Your task to perform on an android device: delete a single message in the gmail app Image 0: 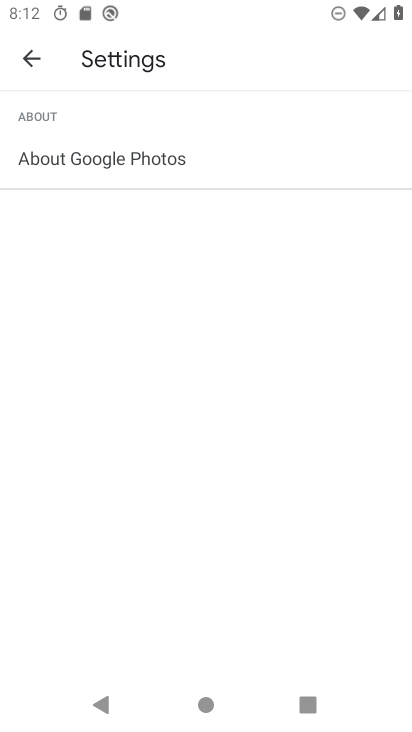
Step 0: press home button
Your task to perform on an android device: delete a single message in the gmail app Image 1: 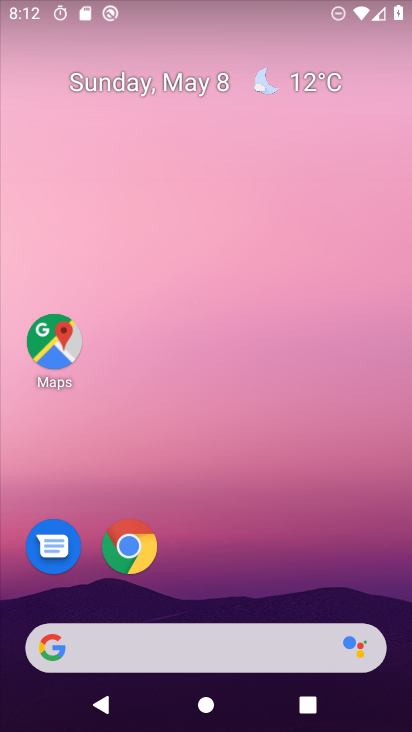
Step 1: drag from (222, 553) to (262, 25)
Your task to perform on an android device: delete a single message in the gmail app Image 2: 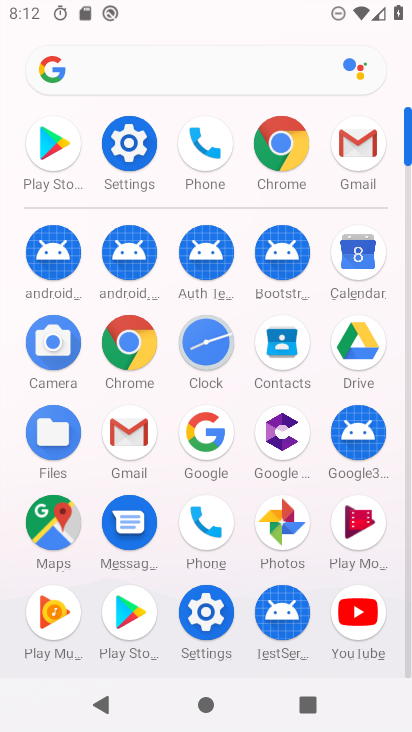
Step 2: click (354, 141)
Your task to perform on an android device: delete a single message in the gmail app Image 3: 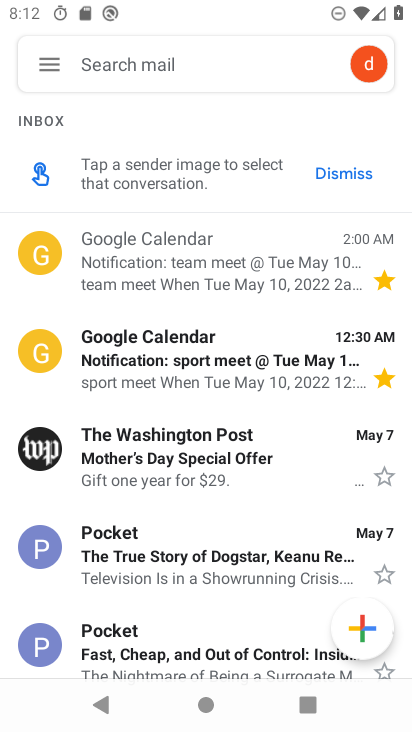
Step 3: drag from (261, 528) to (261, 180)
Your task to perform on an android device: delete a single message in the gmail app Image 4: 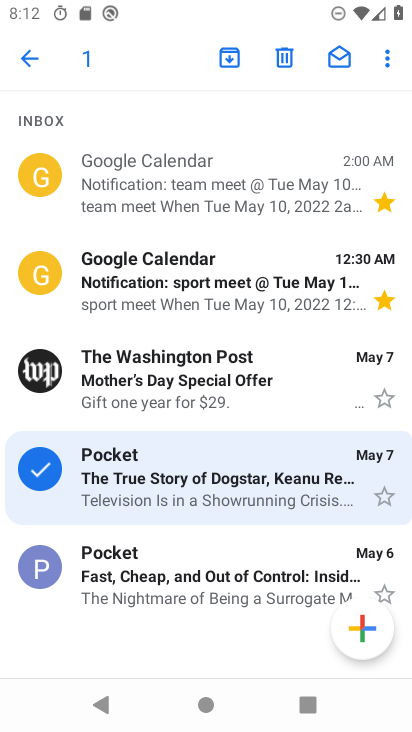
Step 4: click (284, 55)
Your task to perform on an android device: delete a single message in the gmail app Image 5: 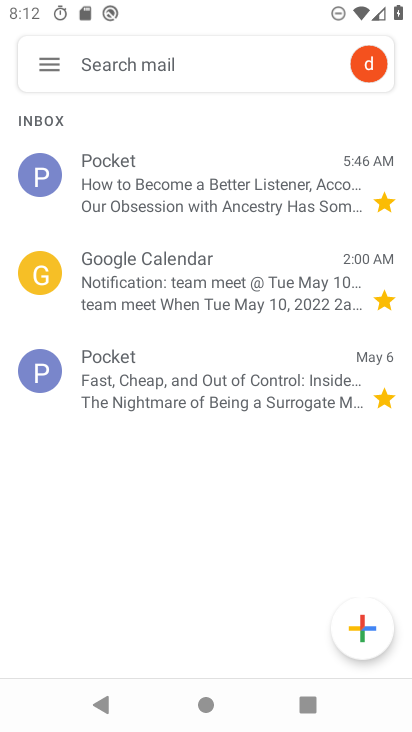
Step 5: task complete